Your task to perform on an android device: Go to battery settings Image 0: 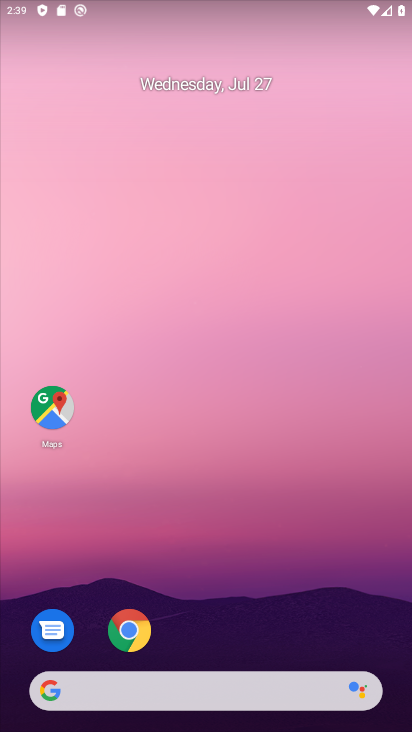
Step 0: press home button
Your task to perform on an android device: Go to battery settings Image 1: 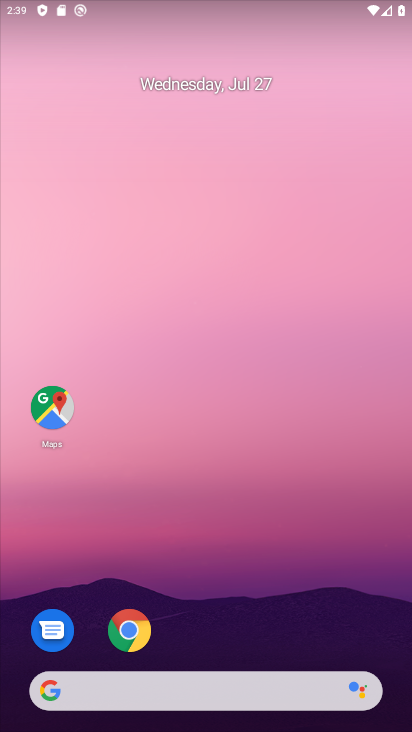
Step 1: drag from (268, 652) to (281, 17)
Your task to perform on an android device: Go to battery settings Image 2: 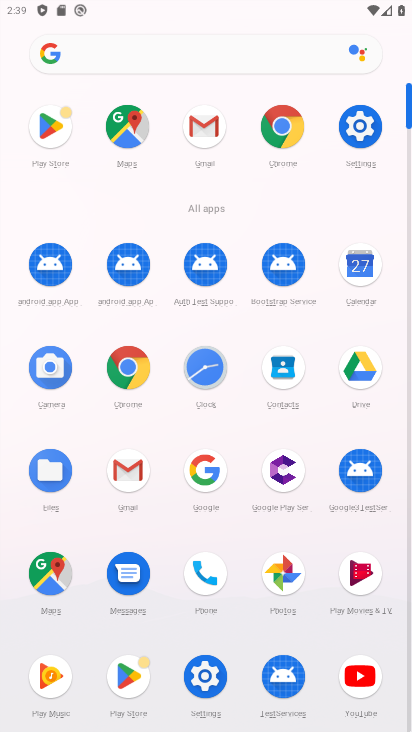
Step 2: click (354, 127)
Your task to perform on an android device: Go to battery settings Image 3: 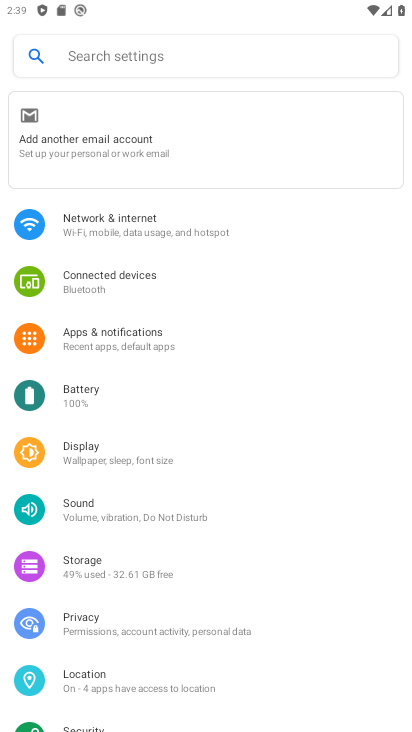
Step 3: click (79, 394)
Your task to perform on an android device: Go to battery settings Image 4: 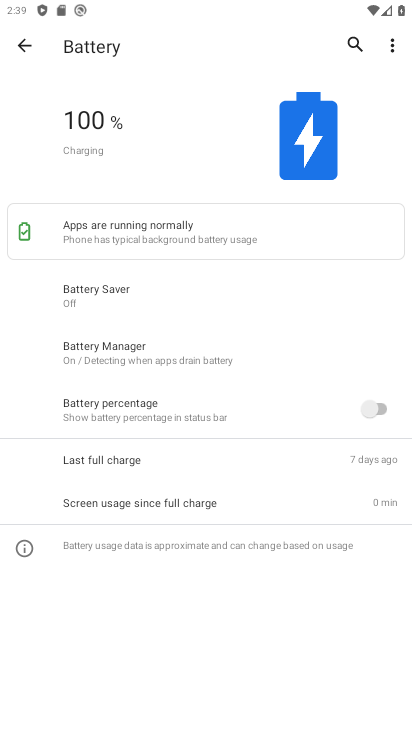
Step 4: task complete